Your task to perform on an android device: choose inbox layout in the gmail app Image 0: 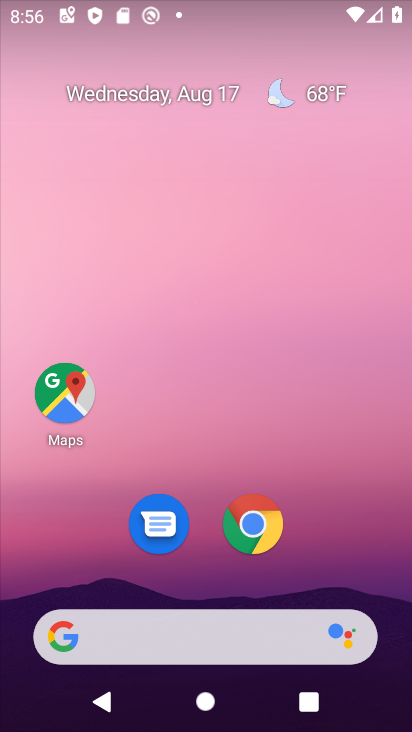
Step 0: drag from (210, 468) to (247, 4)
Your task to perform on an android device: choose inbox layout in the gmail app Image 1: 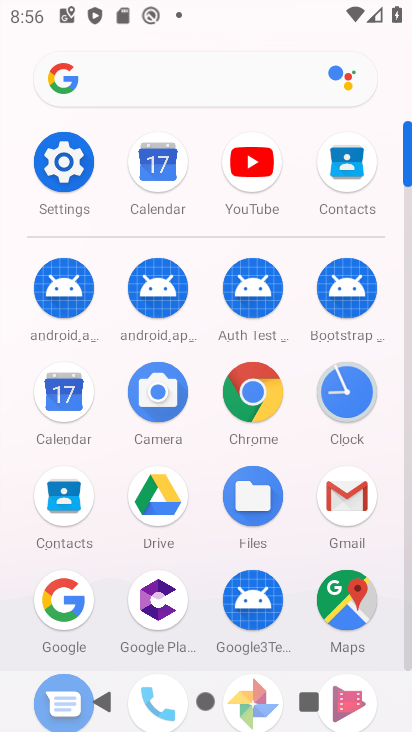
Step 1: click (347, 492)
Your task to perform on an android device: choose inbox layout in the gmail app Image 2: 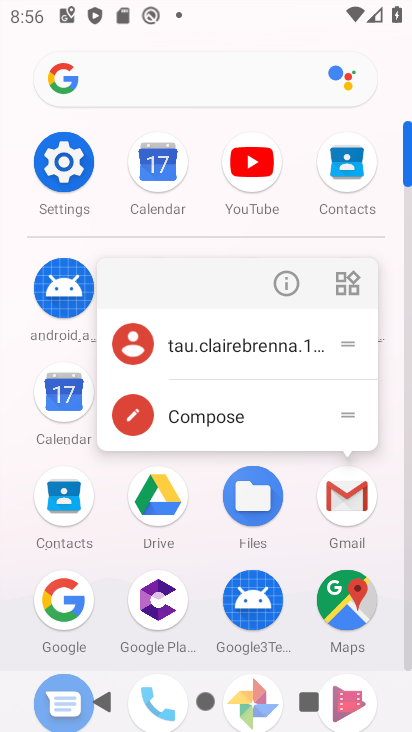
Step 2: click (352, 504)
Your task to perform on an android device: choose inbox layout in the gmail app Image 3: 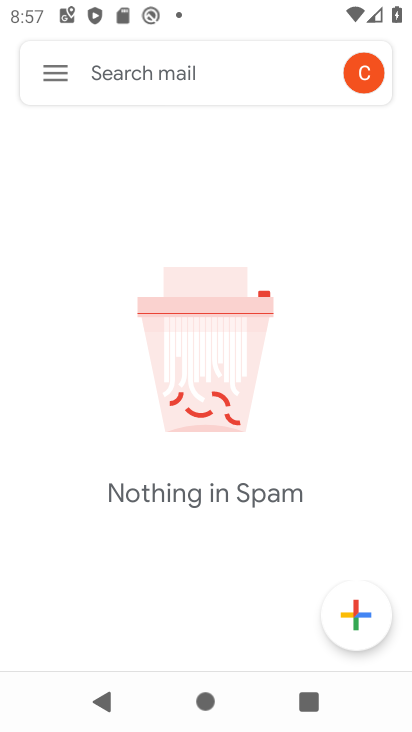
Step 3: click (55, 60)
Your task to perform on an android device: choose inbox layout in the gmail app Image 4: 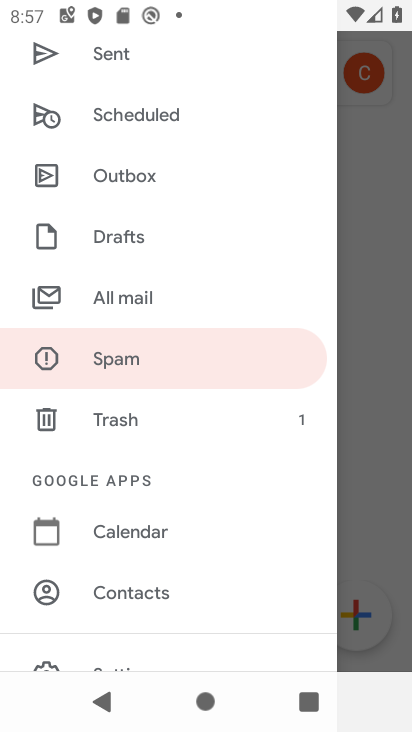
Step 4: drag from (145, 451) to (186, 89)
Your task to perform on an android device: choose inbox layout in the gmail app Image 5: 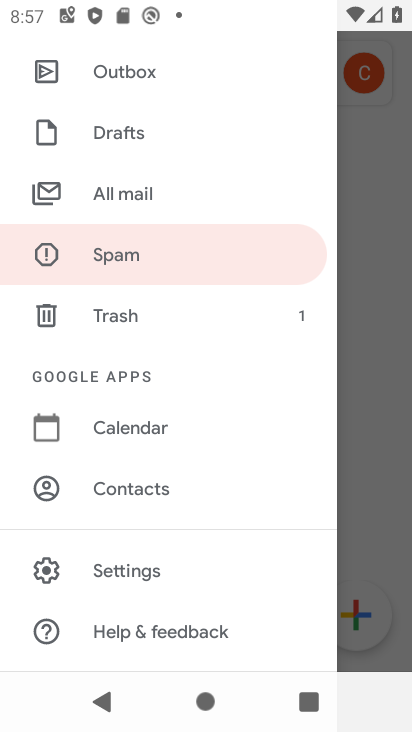
Step 5: click (121, 579)
Your task to perform on an android device: choose inbox layout in the gmail app Image 6: 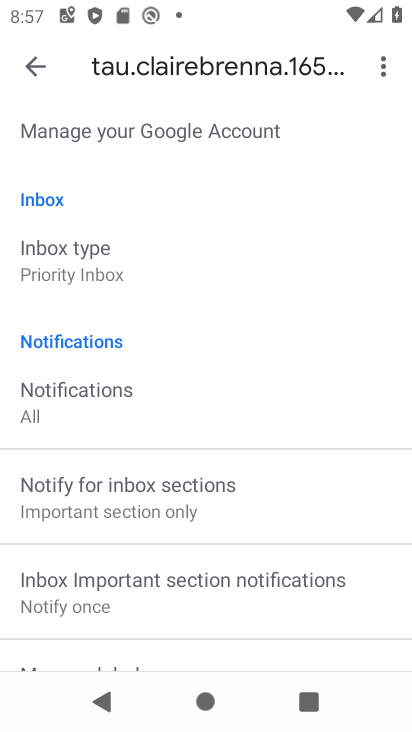
Step 6: click (96, 258)
Your task to perform on an android device: choose inbox layout in the gmail app Image 7: 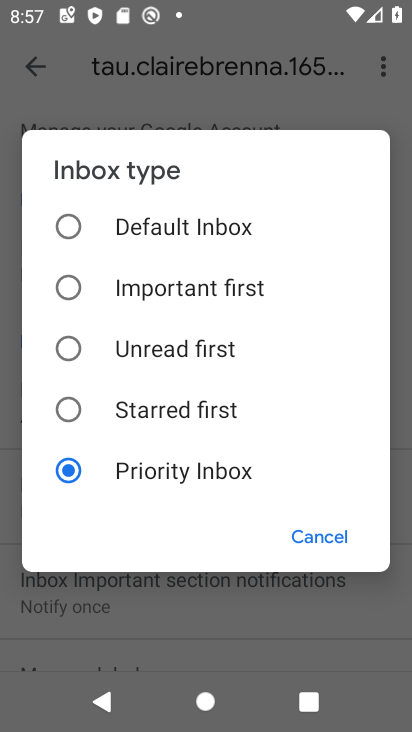
Step 7: click (69, 221)
Your task to perform on an android device: choose inbox layout in the gmail app Image 8: 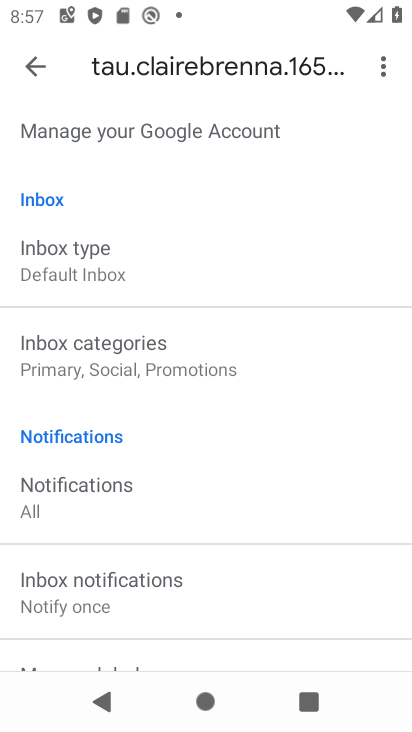
Step 8: task complete